Your task to perform on an android device: Show me popular games on the Play Store Image 0: 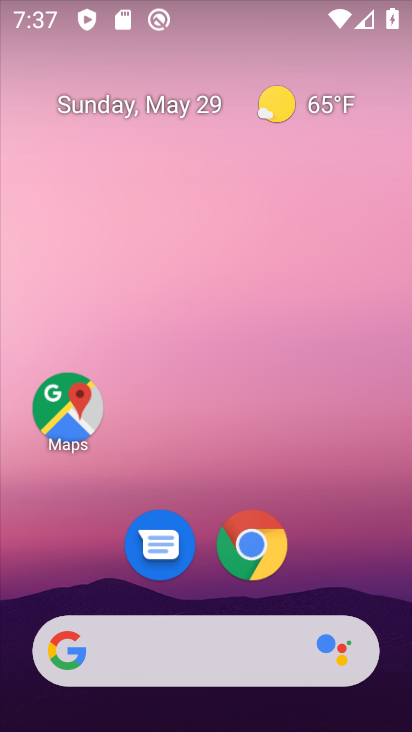
Step 0: click (241, 217)
Your task to perform on an android device: Show me popular games on the Play Store Image 1: 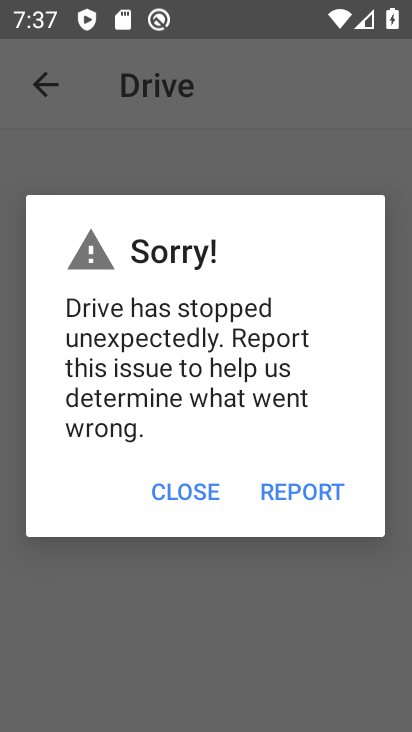
Step 1: press home button
Your task to perform on an android device: Show me popular games on the Play Store Image 2: 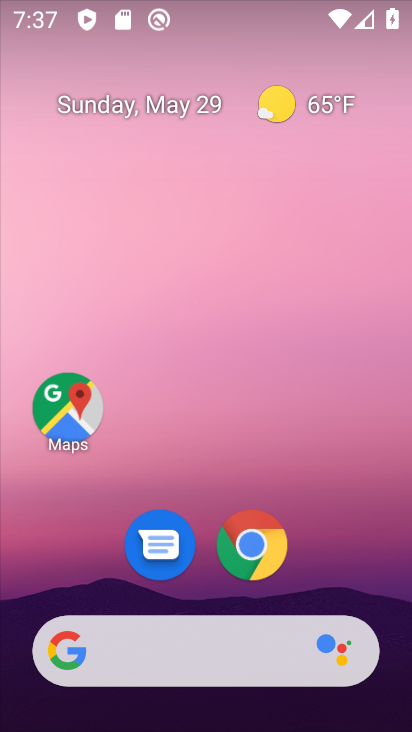
Step 2: drag from (195, 590) to (227, 242)
Your task to perform on an android device: Show me popular games on the Play Store Image 3: 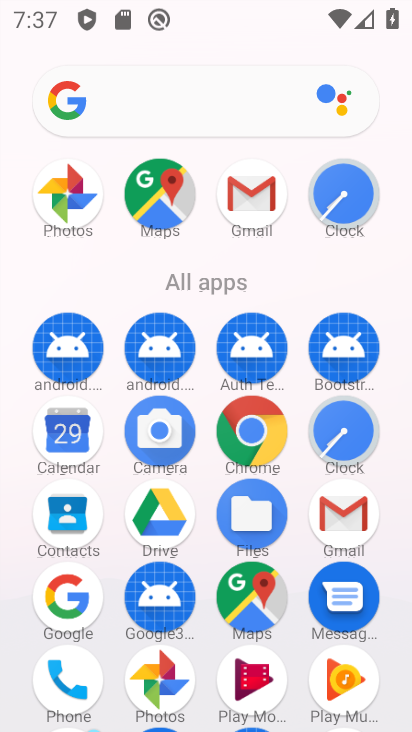
Step 3: drag from (200, 674) to (225, 353)
Your task to perform on an android device: Show me popular games on the Play Store Image 4: 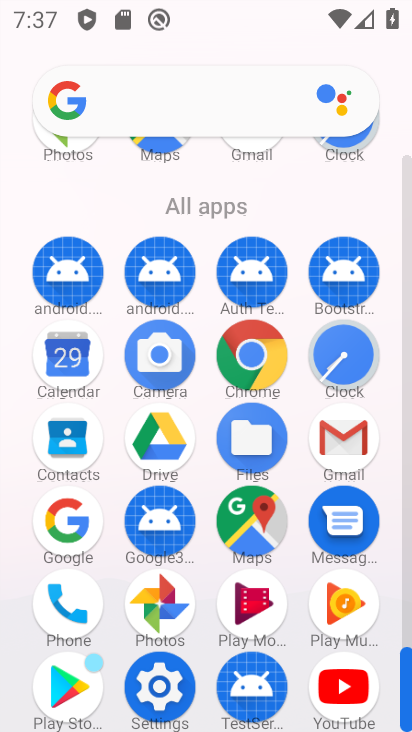
Step 4: click (72, 690)
Your task to perform on an android device: Show me popular games on the Play Store Image 5: 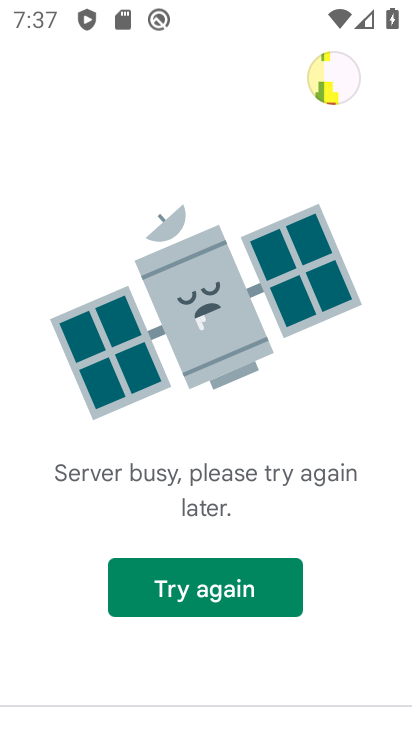
Step 5: task complete